Your task to perform on an android device: Go to accessibility settings Image 0: 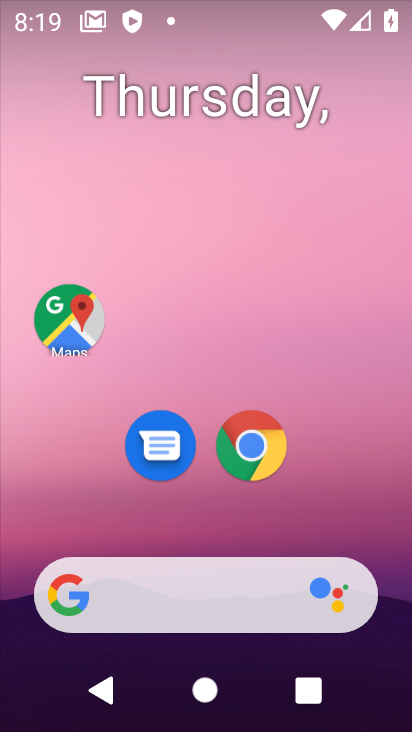
Step 0: drag from (58, 587) to (333, 146)
Your task to perform on an android device: Go to accessibility settings Image 1: 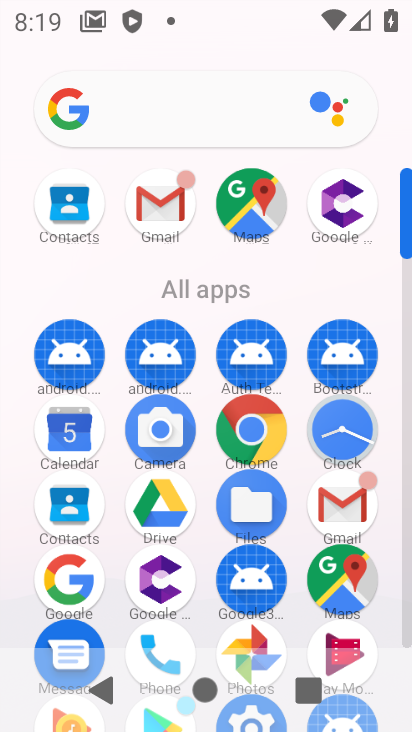
Step 1: drag from (47, 576) to (172, 174)
Your task to perform on an android device: Go to accessibility settings Image 2: 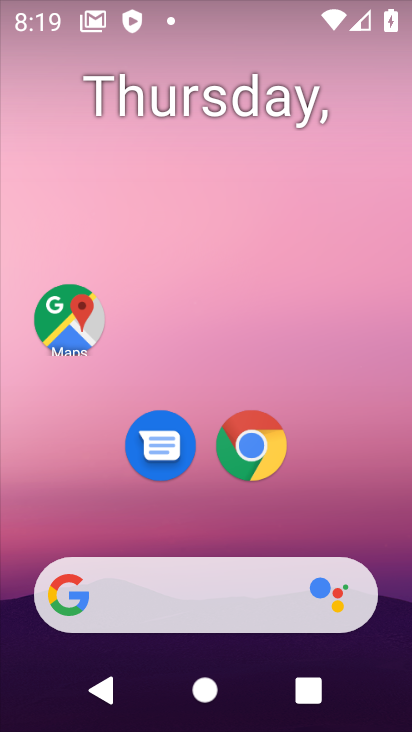
Step 2: drag from (63, 570) to (279, 166)
Your task to perform on an android device: Go to accessibility settings Image 3: 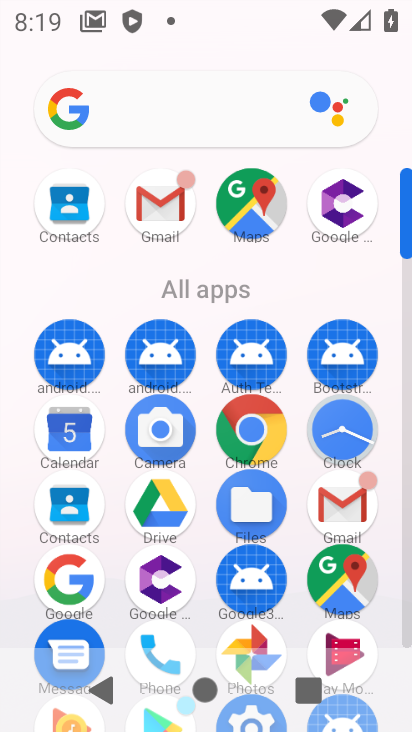
Step 3: drag from (406, 244) to (407, 328)
Your task to perform on an android device: Go to accessibility settings Image 4: 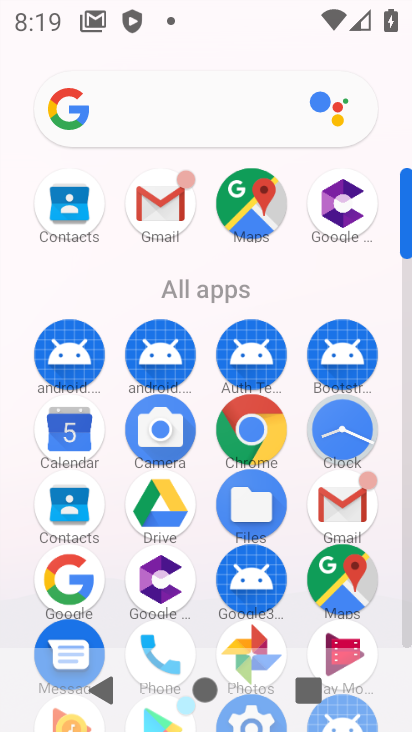
Step 4: drag from (18, 639) to (54, 276)
Your task to perform on an android device: Go to accessibility settings Image 5: 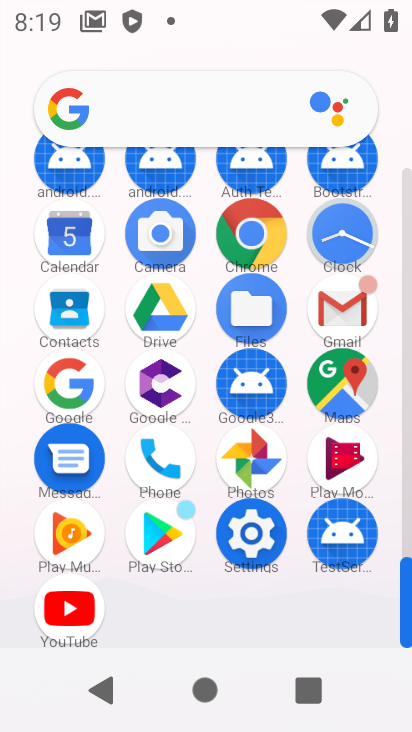
Step 5: click (257, 546)
Your task to perform on an android device: Go to accessibility settings Image 6: 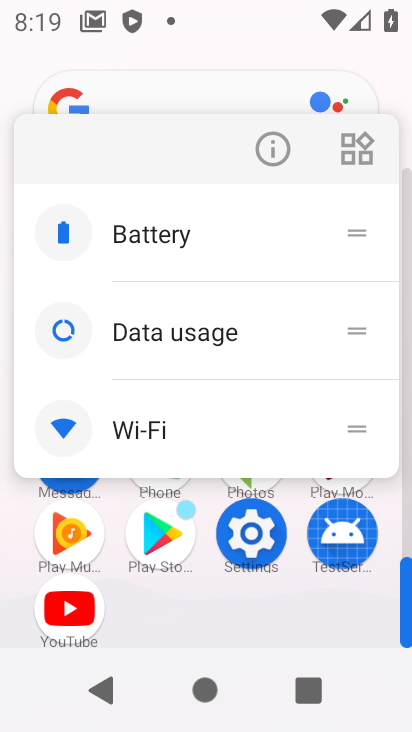
Step 6: click (282, 158)
Your task to perform on an android device: Go to accessibility settings Image 7: 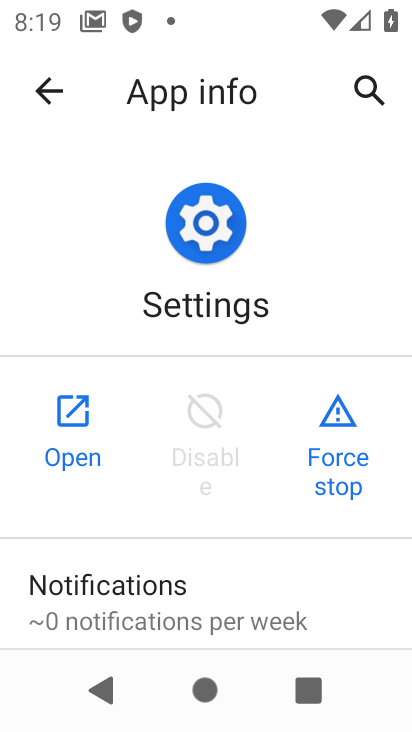
Step 7: click (51, 85)
Your task to perform on an android device: Go to accessibility settings Image 8: 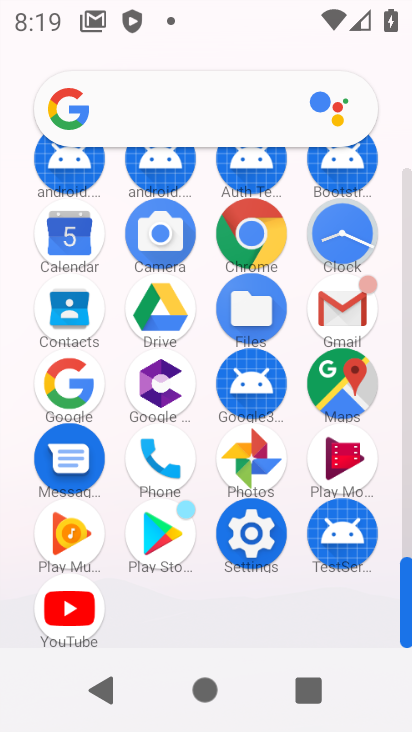
Step 8: click (241, 549)
Your task to perform on an android device: Go to accessibility settings Image 9: 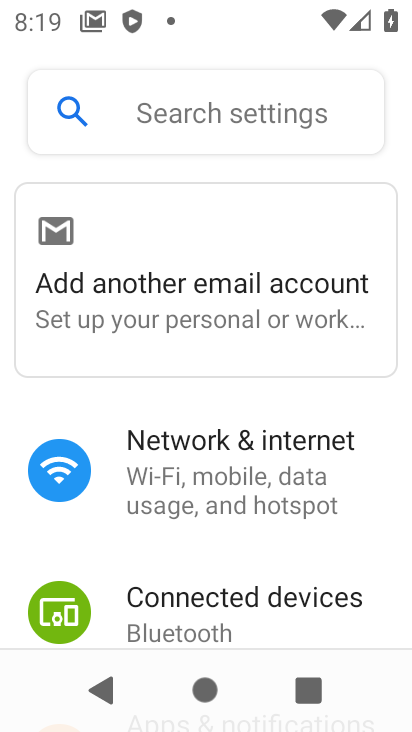
Step 9: drag from (205, 560) to (291, 242)
Your task to perform on an android device: Go to accessibility settings Image 10: 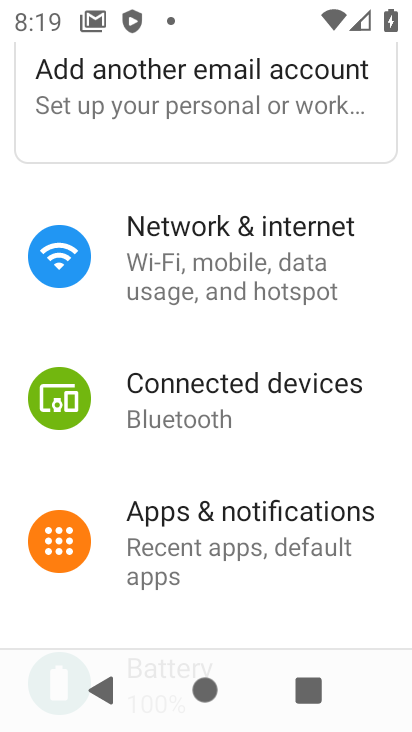
Step 10: drag from (211, 516) to (319, 204)
Your task to perform on an android device: Go to accessibility settings Image 11: 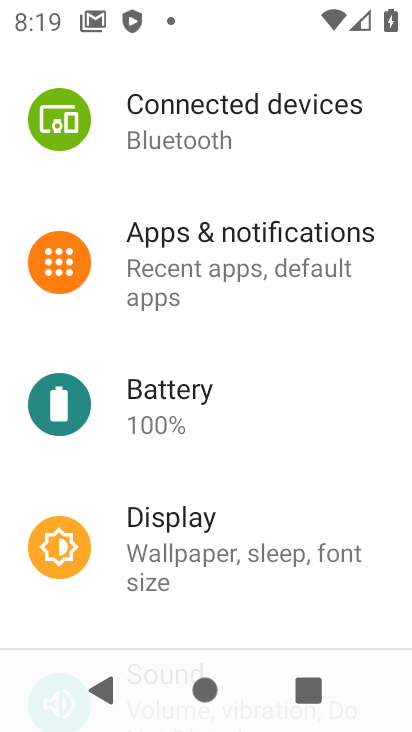
Step 11: drag from (204, 532) to (318, 226)
Your task to perform on an android device: Go to accessibility settings Image 12: 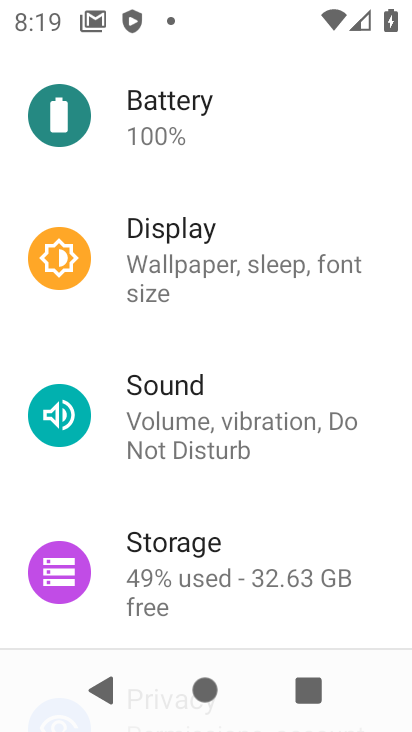
Step 12: drag from (225, 555) to (327, 189)
Your task to perform on an android device: Go to accessibility settings Image 13: 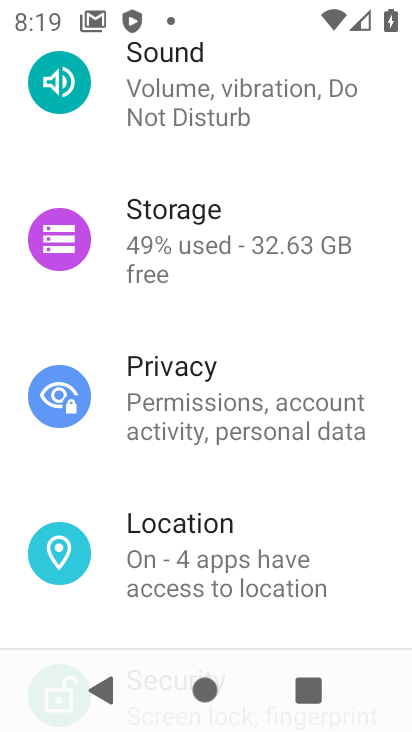
Step 13: drag from (272, 562) to (312, 245)
Your task to perform on an android device: Go to accessibility settings Image 14: 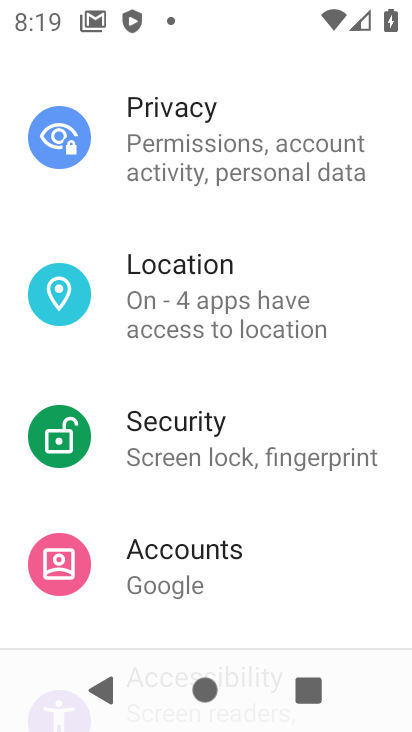
Step 14: drag from (233, 546) to (312, 258)
Your task to perform on an android device: Go to accessibility settings Image 15: 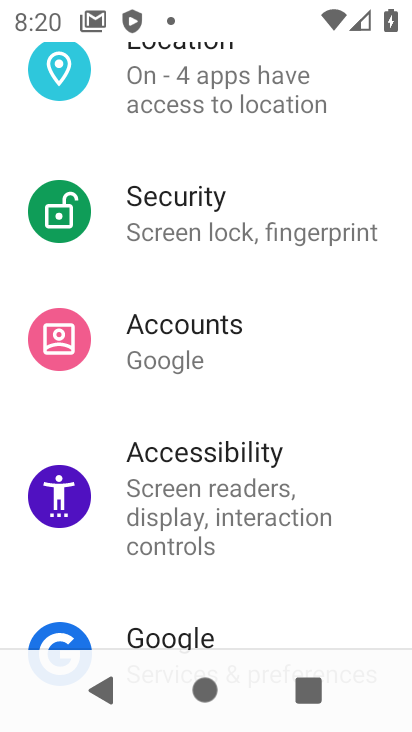
Step 15: click (251, 497)
Your task to perform on an android device: Go to accessibility settings Image 16: 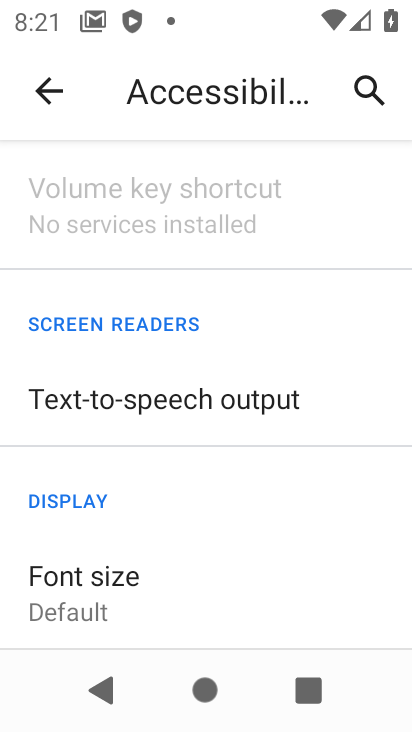
Step 16: task complete